Your task to perform on an android device: turn off data saver in the chrome app Image 0: 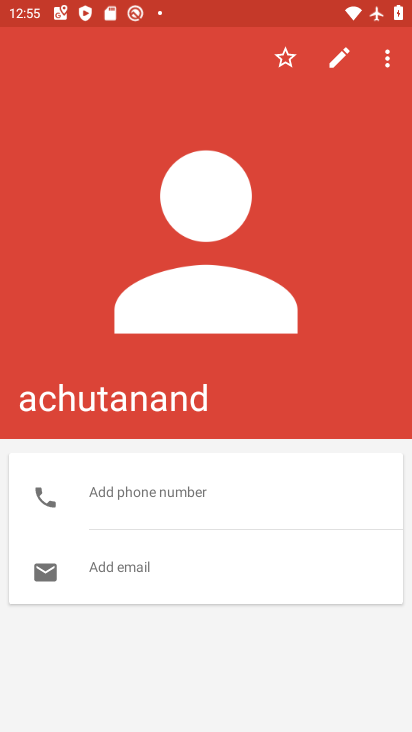
Step 0: press home button
Your task to perform on an android device: turn off data saver in the chrome app Image 1: 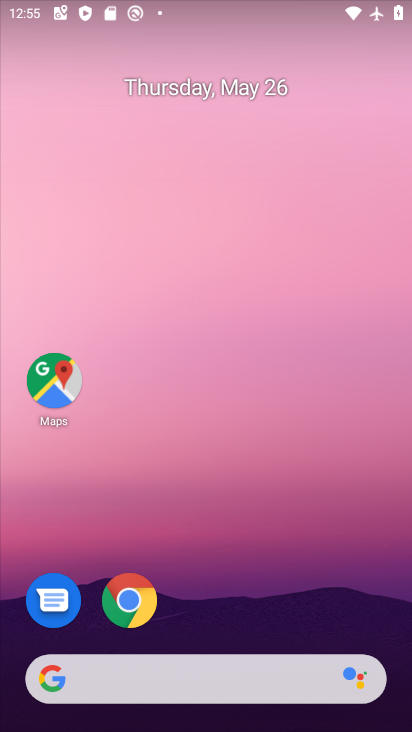
Step 1: click (129, 599)
Your task to perform on an android device: turn off data saver in the chrome app Image 2: 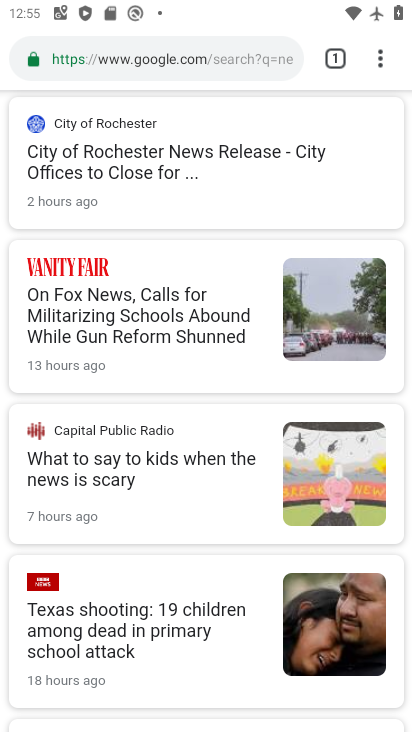
Step 2: drag from (384, 44) to (168, 629)
Your task to perform on an android device: turn off data saver in the chrome app Image 3: 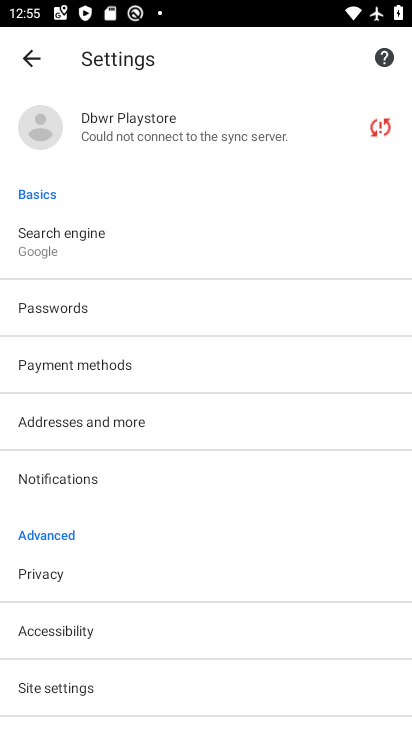
Step 3: drag from (147, 676) to (228, 344)
Your task to perform on an android device: turn off data saver in the chrome app Image 4: 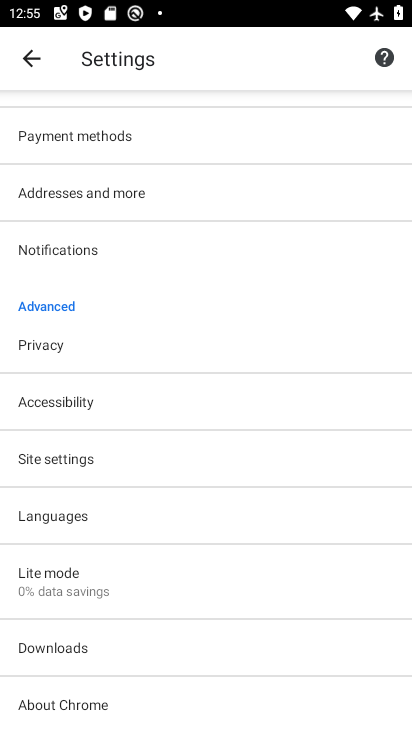
Step 4: click (45, 574)
Your task to perform on an android device: turn off data saver in the chrome app Image 5: 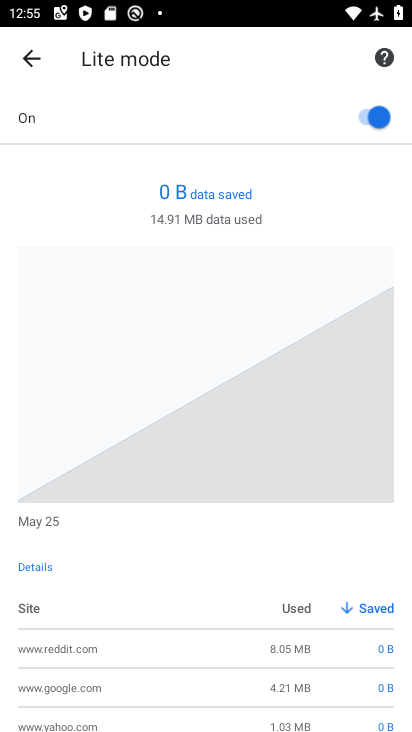
Step 5: click (388, 113)
Your task to perform on an android device: turn off data saver in the chrome app Image 6: 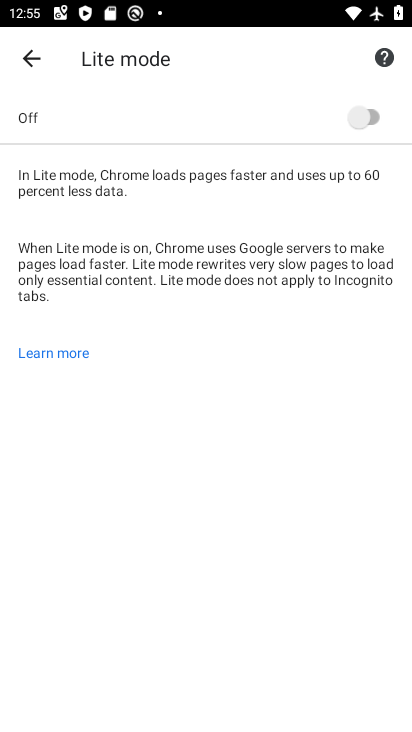
Step 6: task complete